Your task to perform on an android device: turn off improve location accuracy Image 0: 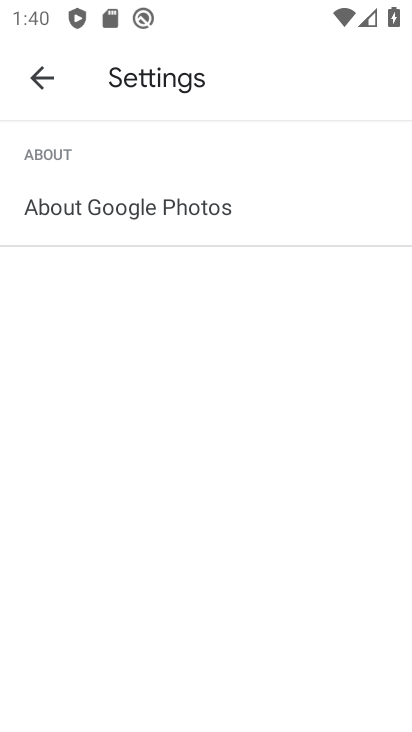
Step 0: press back button
Your task to perform on an android device: turn off improve location accuracy Image 1: 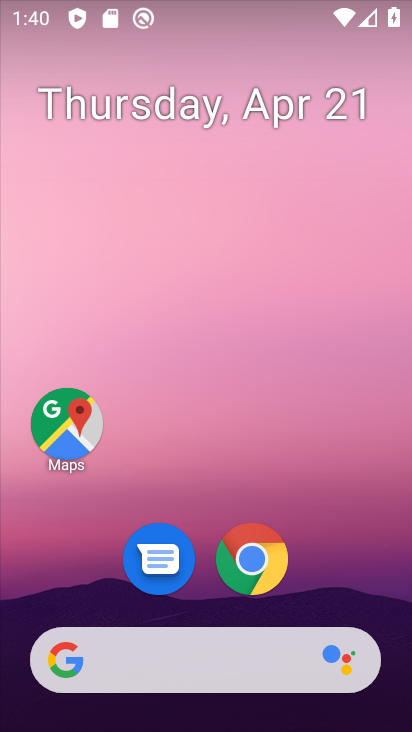
Step 1: drag from (141, 628) to (257, 106)
Your task to perform on an android device: turn off improve location accuracy Image 2: 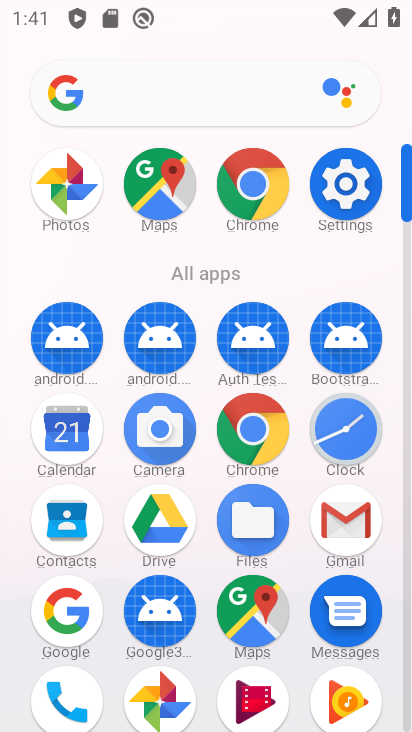
Step 2: click (347, 202)
Your task to perform on an android device: turn off improve location accuracy Image 3: 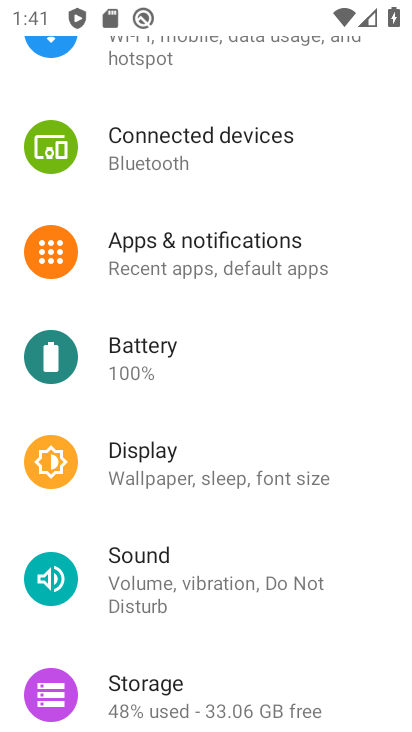
Step 3: drag from (192, 607) to (326, 213)
Your task to perform on an android device: turn off improve location accuracy Image 4: 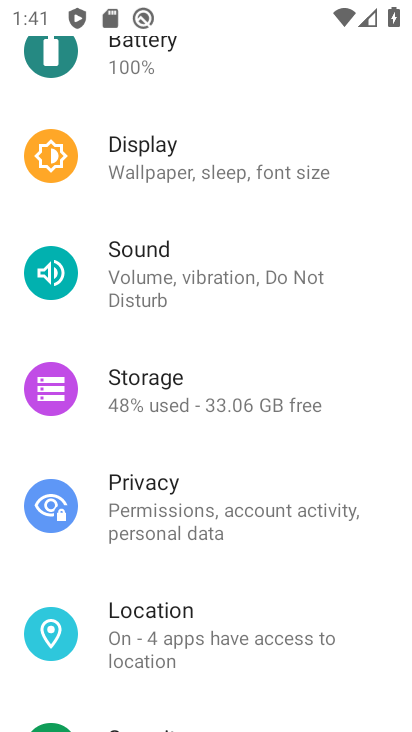
Step 4: click (228, 612)
Your task to perform on an android device: turn off improve location accuracy Image 5: 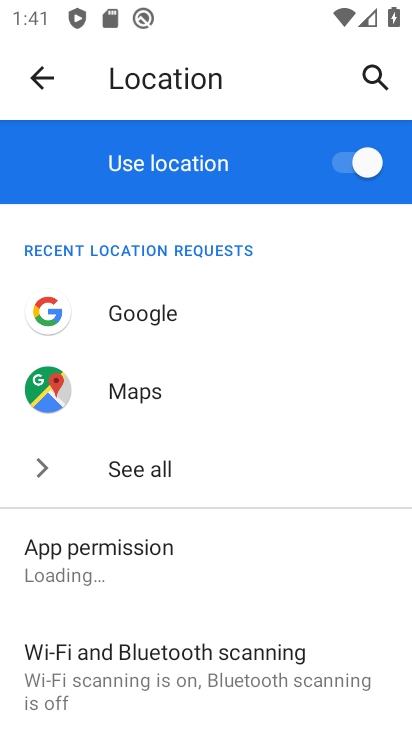
Step 5: drag from (148, 661) to (246, 288)
Your task to perform on an android device: turn off improve location accuracy Image 6: 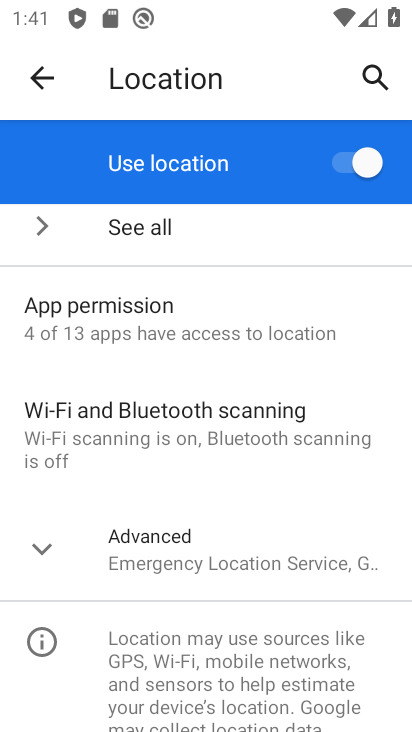
Step 6: click (167, 540)
Your task to perform on an android device: turn off improve location accuracy Image 7: 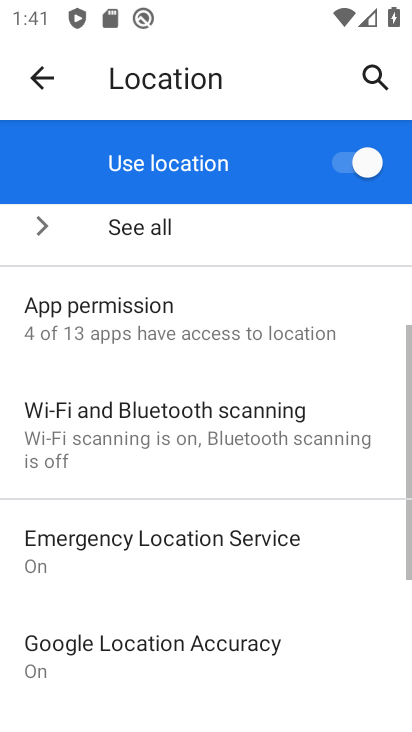
Step 7: drag from (152, 651) to (265, 265)
Your task to perform on an android device: turn off improve location accuracy Image 8: 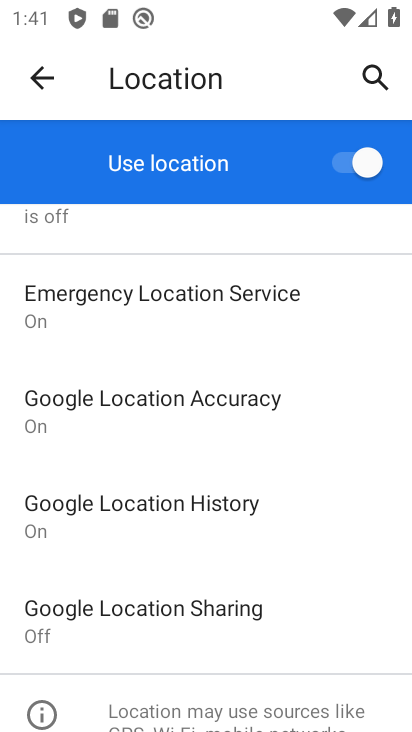
Step 8: click (221, 425)
Your task to perform on an android device: turn off improve location accuracy Image 9: 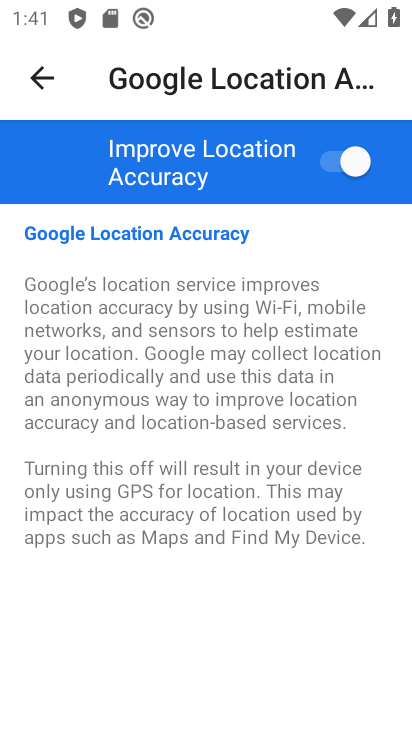
Step 9: click (339, 158)
Your task to perform on an android device: turn off improve location accuracy Image 10: 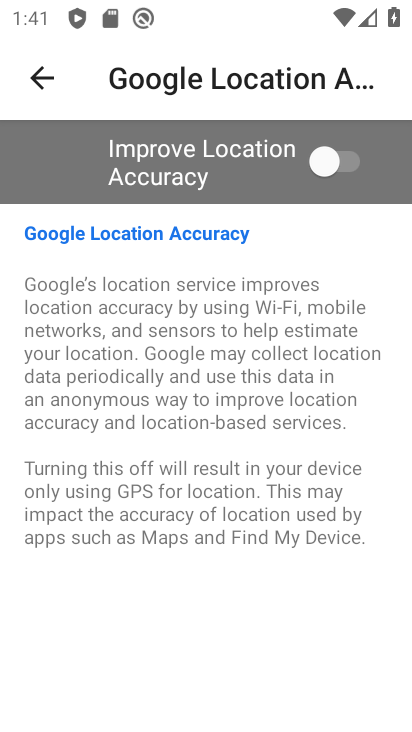
Step 10: task complete